Your task to perform on an android device: What's the weather going to be tomorrow? Image 0: 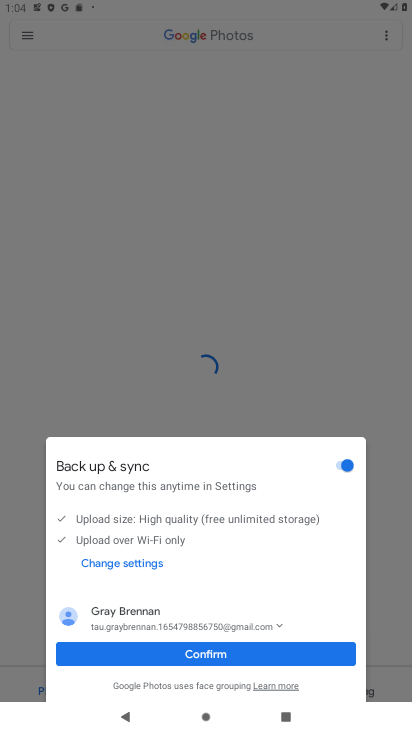
Step 0: press home button
Your task to perform on an android device: What's the weather going to be tomorrow? Image 1: 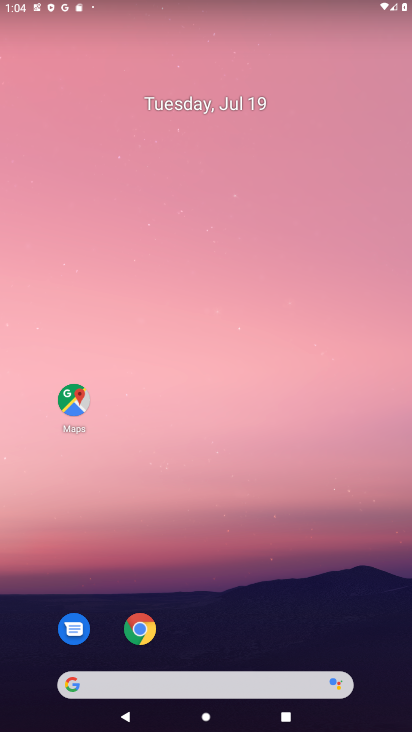
Step 1: click (179, 679)
Your task to perform on an android device: What's the weather going to be tomorrow? Image 2: 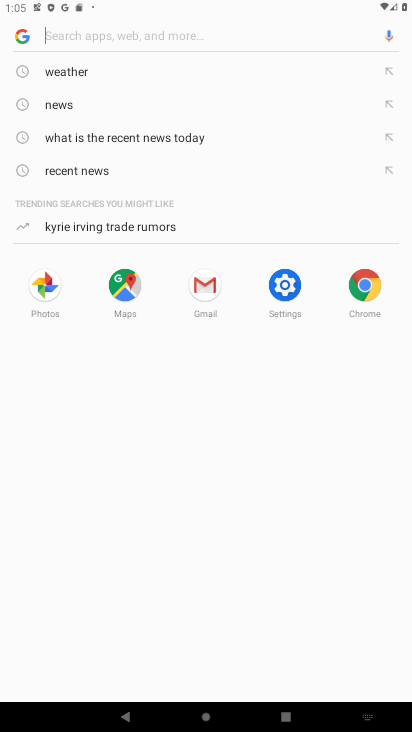
Step 2: click (66, 72)
Your task to perform on an android device: What's the weather going to be tomorrow? Image 3: 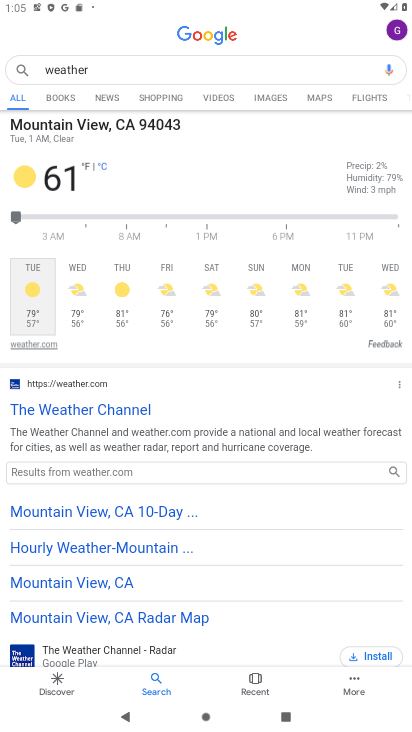
Step 3: task complete